Your task to perform on an android device: Nike Air Max 2020 shoes on Nike.com Image 0: 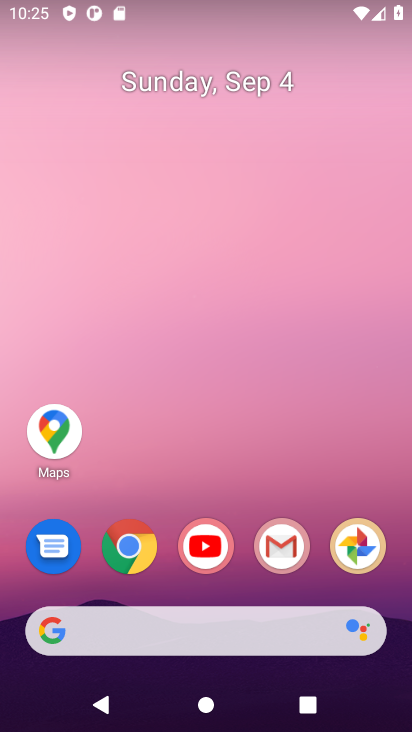
Step 0: click (133, 551)
Your task to perform on an android device: Nike Air Max 2020 shoes on Nike.com Image 1: 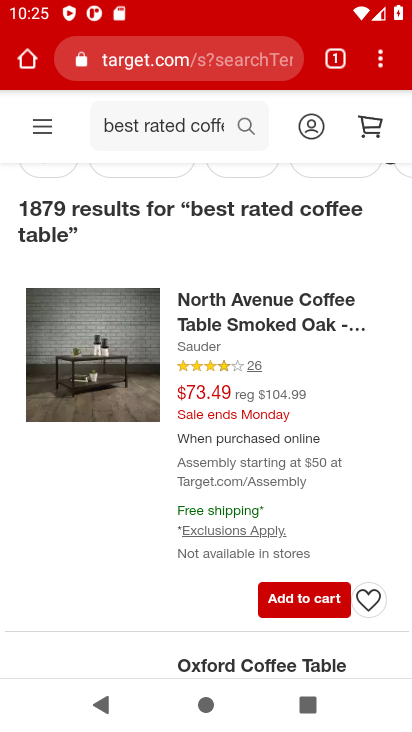
Step 1: click (187, 45)
Your task to perform on an android device: Nike Air Max 2020 shoes on Nike.com Image 2: 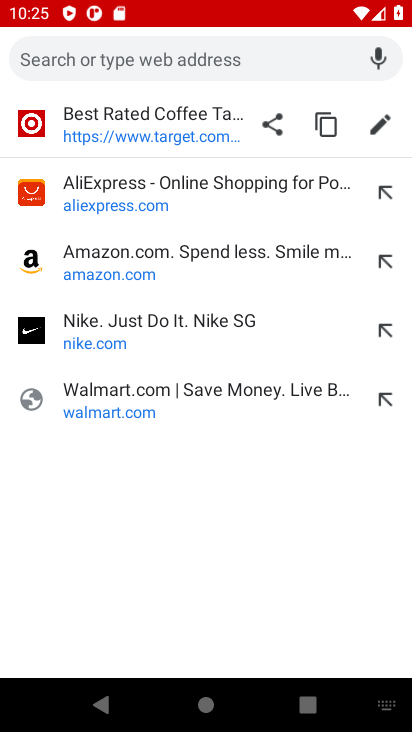
Step 2: type " Nike.com"
Your task to perform on an android device: Nike Air Max 2020 shoes on Nike.com Image 3: 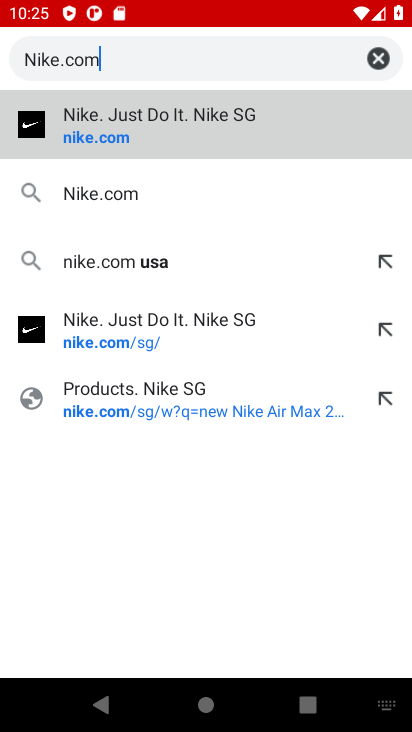
Step 3: click (92, 192)
Your task to perform on an android device: Nike Air Max 2020 shoes on Nike.com Image 4: 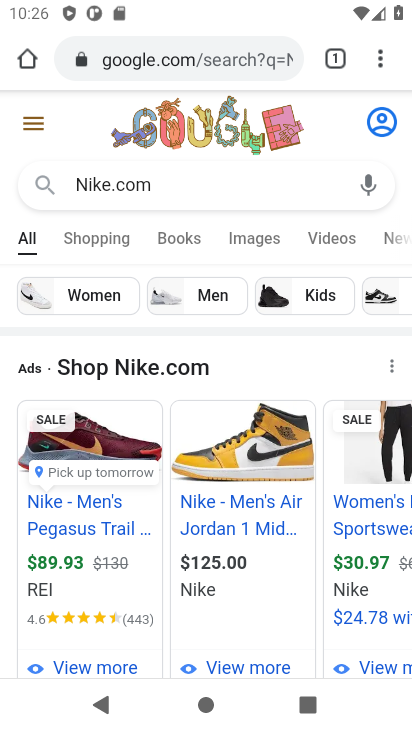
Step 4: drag from (198, 439) to (186, 94)
Your task to perform on an android device: Nike Air Max 2020 shoes on Nike.com Image 5: 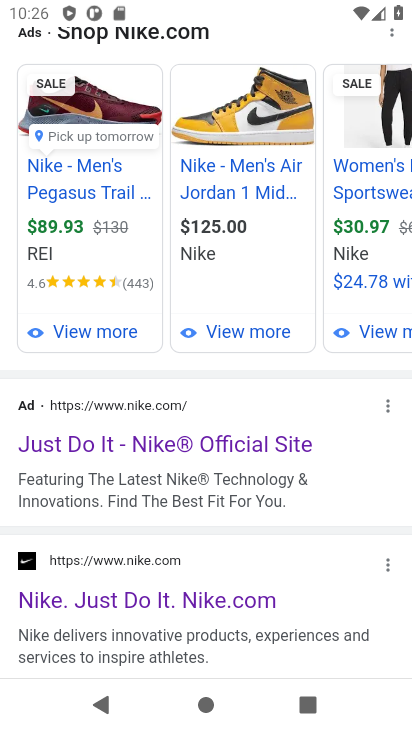
Step 5: drag from (154, 455) to (154, 152)
Your task to perform on an android device: Nike Air Max 2020 shoes on Nike.com Image 6: 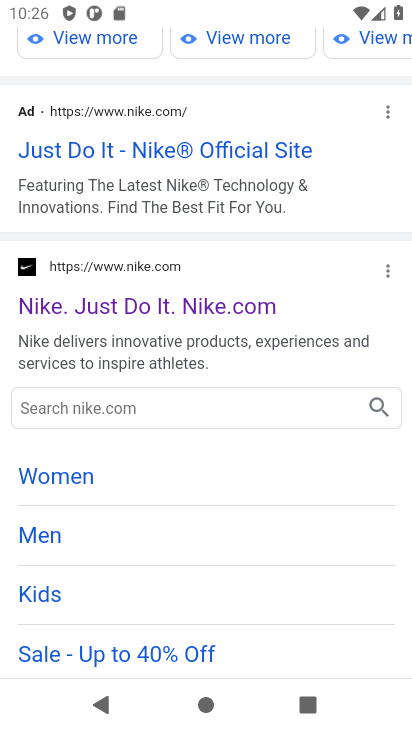
Step 6: click (44, 319)
Your task to perform on an android device: Nike Air Max 2020 shoes on Nike.com Image 7: 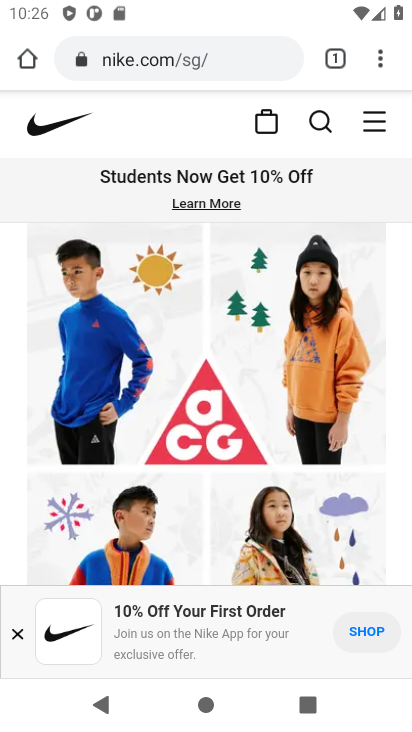
Step 7: click (314, 121)
Your task to perform on an android device: Nike Air Max 2020 shoes on Nike.com Image 8: 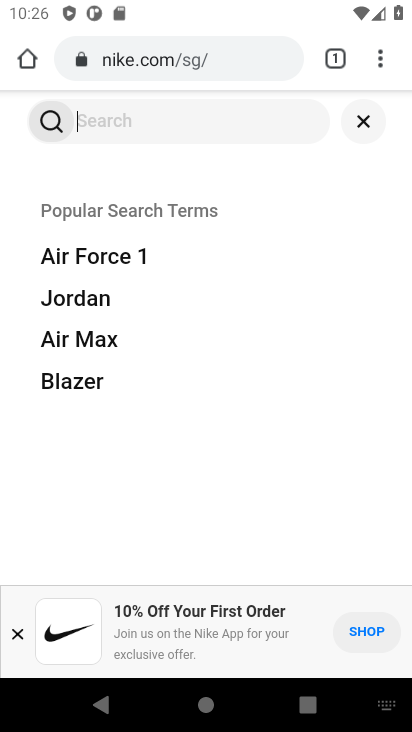
Step 8: type "Nike Air Max 2020 shoes"
Your task to perform on an android device: Nike Air Max 2020 shoes on Nike.com Image 9: 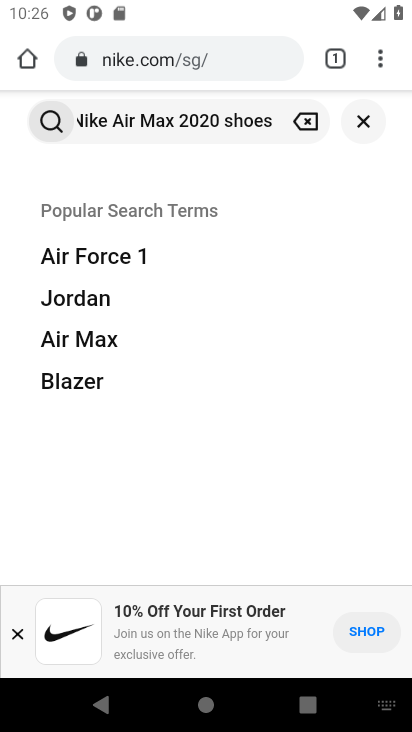
Step 9: click (49, 120)
Your task to perform on an android device: Nike Air Max 2020 shoes on Nike.com Image 10: 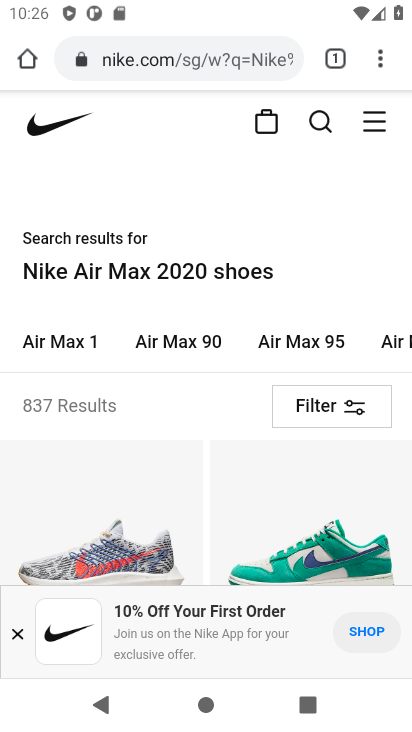
Step 10: task complete